Your task to perform on an android device: turn off sleep mode Image 0: 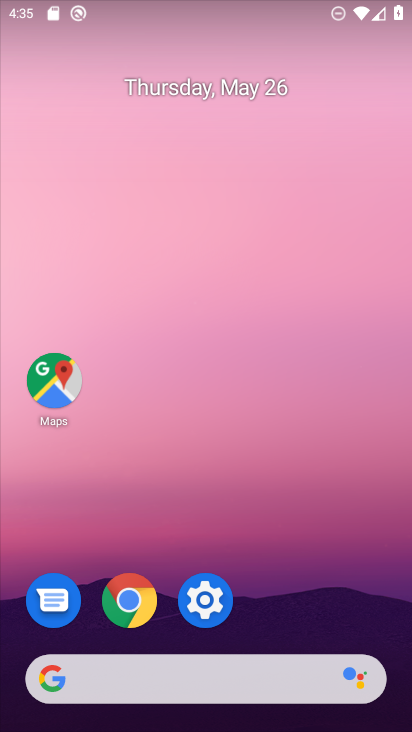
Step 0: drag from (289, 606) to (235, 319)
Your task to perform on an android device: turn off sleep mode Image 1: 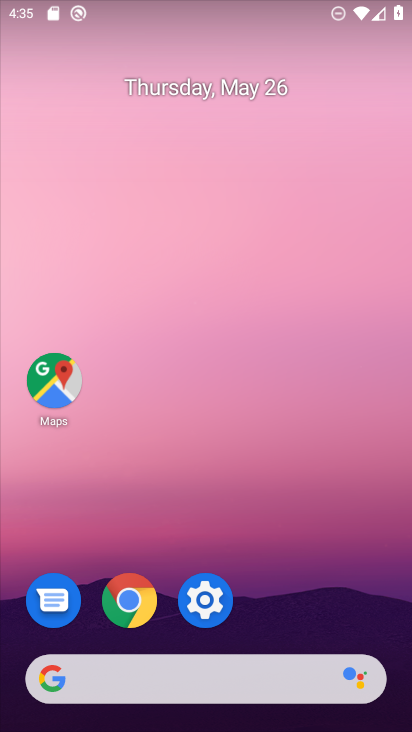
Step 1: drag from (307, 612) to (245, 234)
Your task to perform on an android device: turn off sleep mode Image 2: 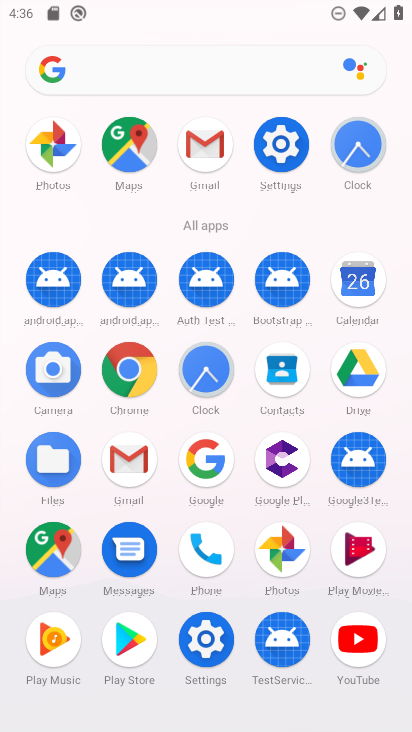
Step 2: click (277, 156)
Your task to perform on an android device: turn off sleep mode Image 3: 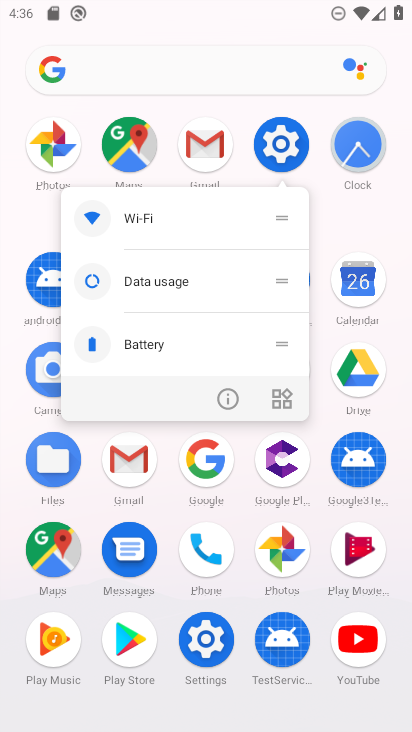
Step 3: click (270, 150)
Your task to perform on an android device: turn off sleep mode Image 4: 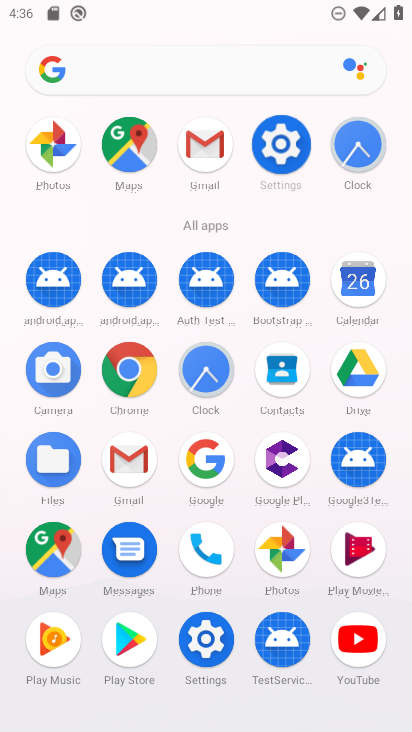
Step 4: click (275, 150)
Your task to perform on an android device: turn off sleep mode Image 5: 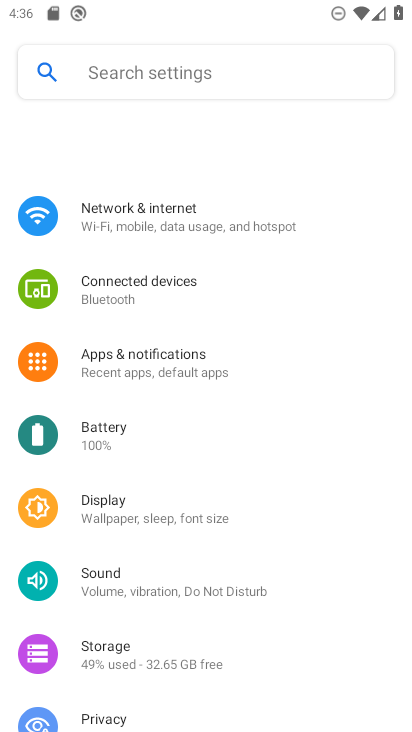
Step 5: click (275, 150)
Your task to perform on an android device: turn off sleep mode Image 6: 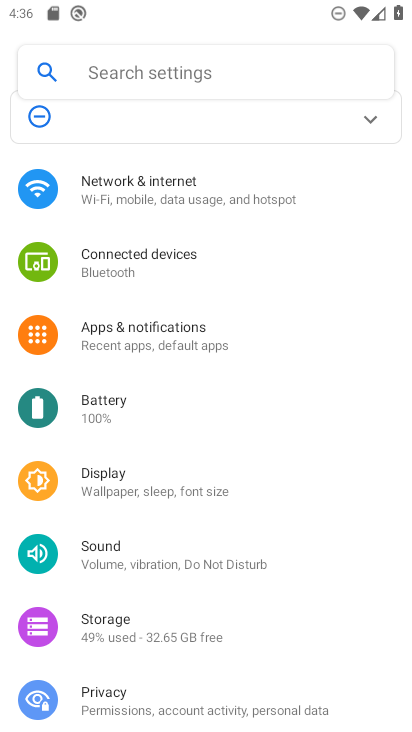
Step 6: click (275, 150)
Your task to perform on an android device: turn off sleep mode Image 7: 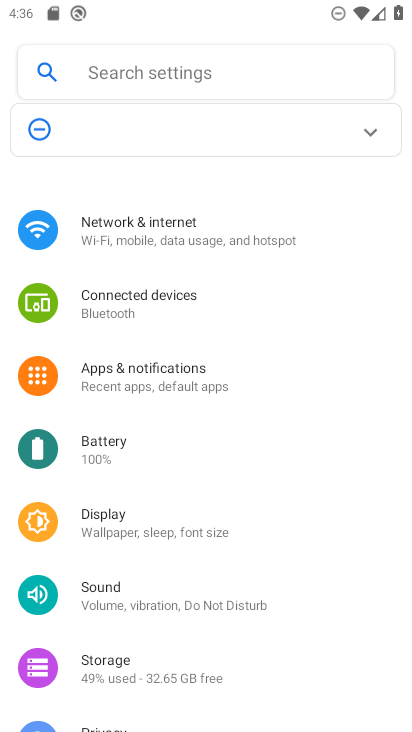
Step 7: click (276, 150)
Your task to perform on an android device: turn off sleep mode Image 8: 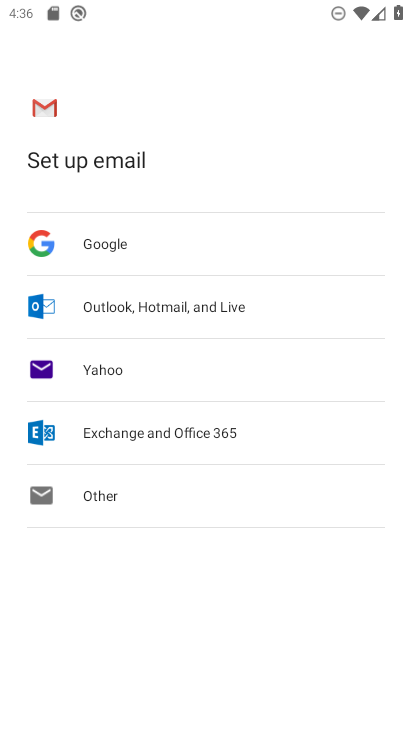
Step 8: press back button
Your task to perform on an android device: turn off sleep mode Image 9: 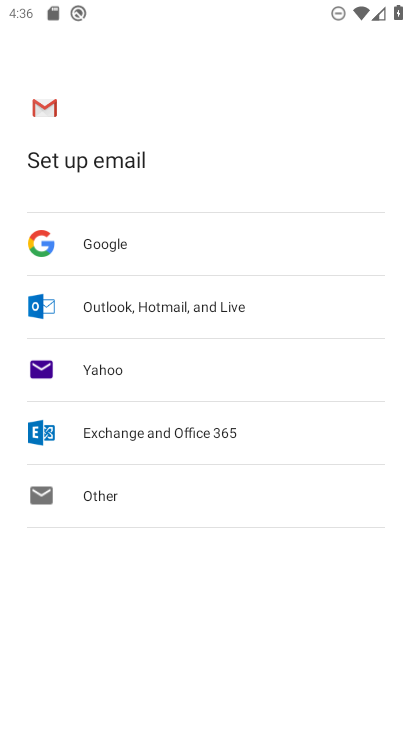
Step 9: press back button
Your task to perform on an android device: turn off sleep mode Image 10: 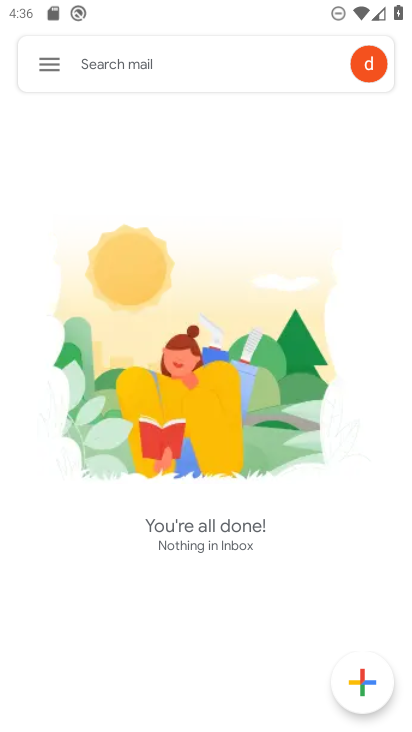
Step 10: press home button
Your task to perform on an android device: turn off sleep mode Image 11: 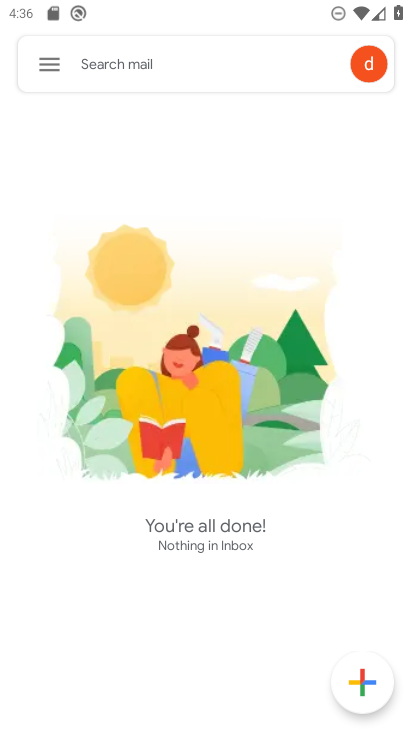
Step 11: press home button
Your task to perform on an android device: turn off sleep mode Image 12: 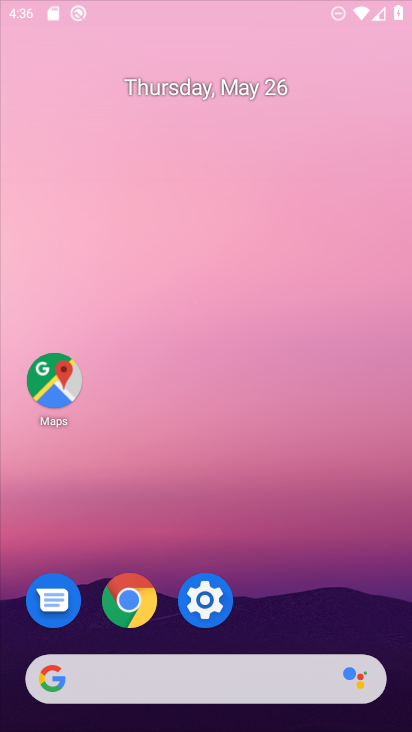
Step 12: press home button
Your task to perform on an android device: turn off sleep mode Image 13: 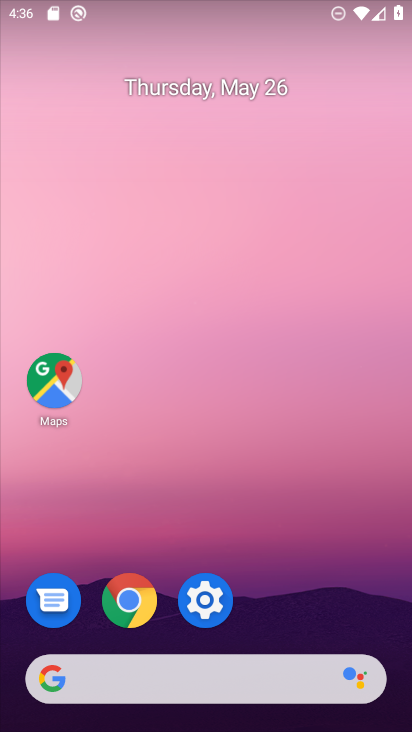
Step 13: drag from (256, 705) to (155, 1)
Your task to perform on an android device: turn off sleep mode Image 14: 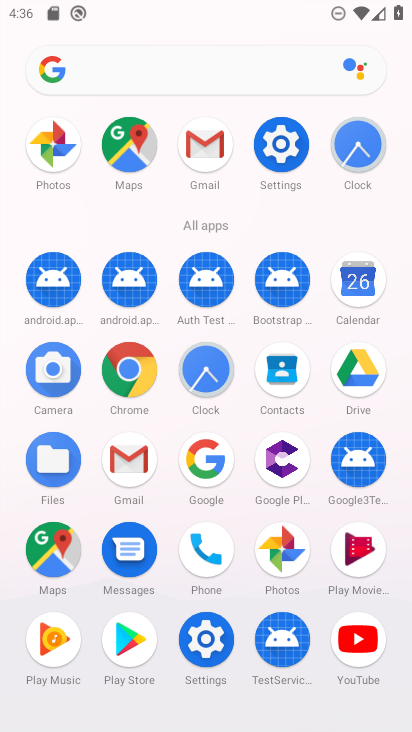
Step 14: click (275, 143)
Your task to perform on an android device: turn off sleep mode Image 15: 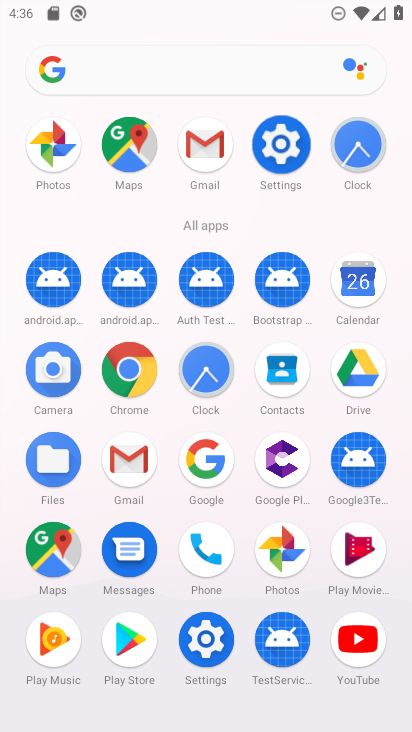
Step 15: click (275, 143)
Your task to perform on an android device: turn off sleep mode Image 16: 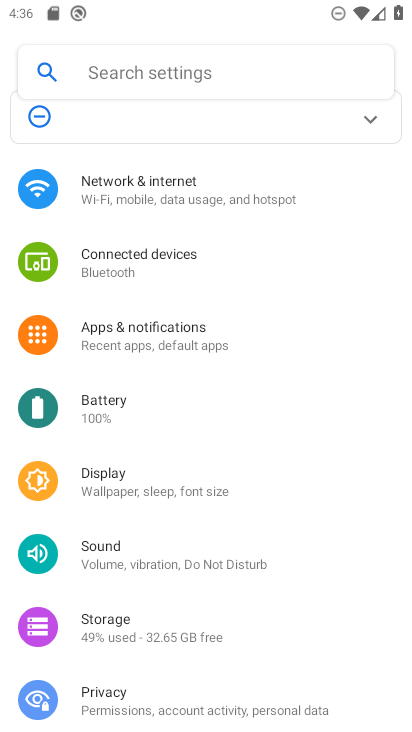
Step 16: click (276, 144)
Your task to perform on an android device: turn off sleep mode Image 17: 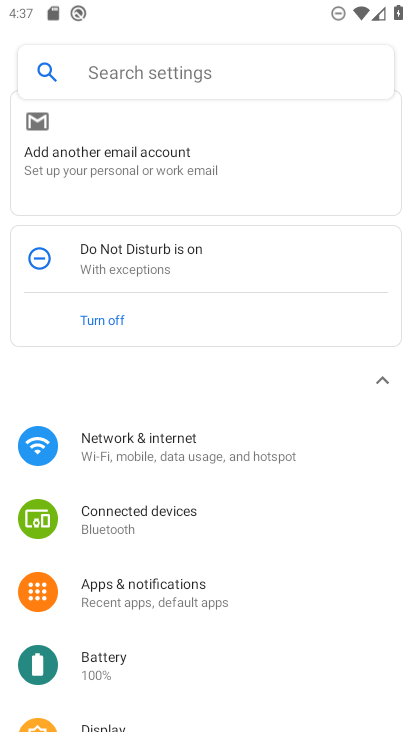
Step 17: drag from (111, 416) to (39, 119)
Your task to perform on an android device: turn off sleep mode Image 18: 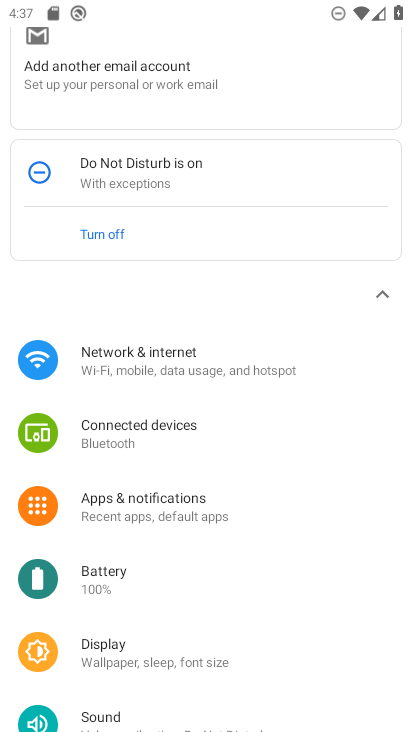
Step 18: drag from (133, 428) to (38, 108)
Your task to perform on an android device: turn off sleep mode Image 19: 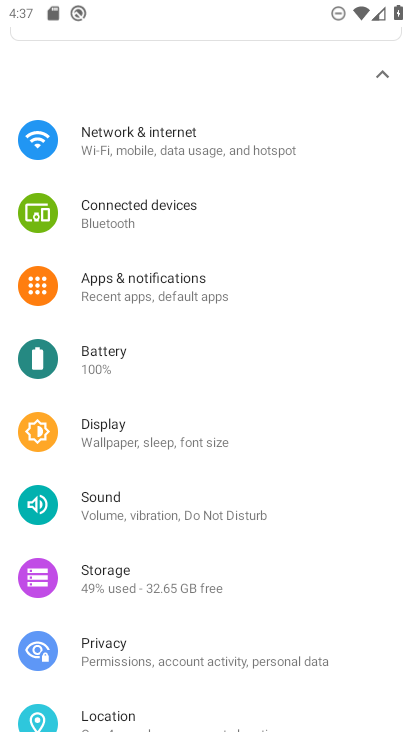
Step 19: click (199, 233)
Your task to perform on an android device: turn off sleep mode Image 20: 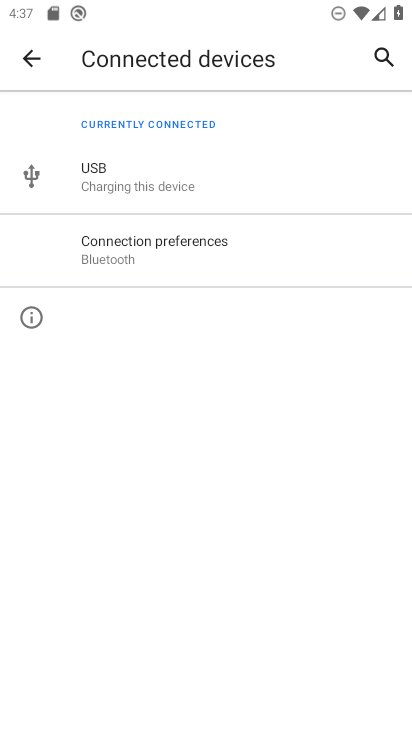
Step 20: click (31, 55)
Your task to perform on an android device: turn off sleep mode Image 21: 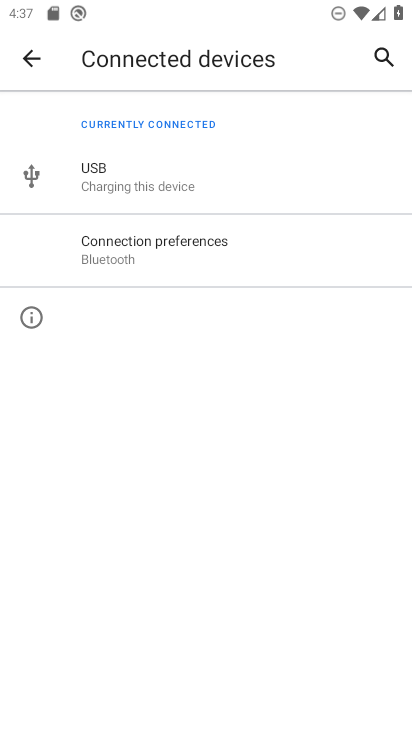
Step 21: click (31, 55)
Your task to perform on an android device: turn off sleep mode Image 22: 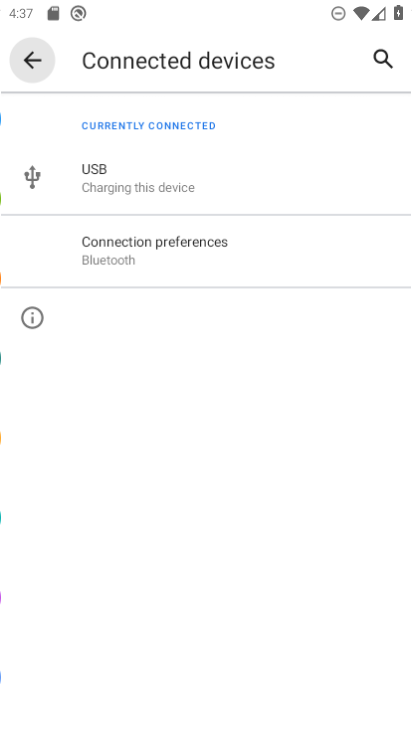
Step 22: click (31, 55)
Your task to perform on an android device: turn off sleep mode Image 23: 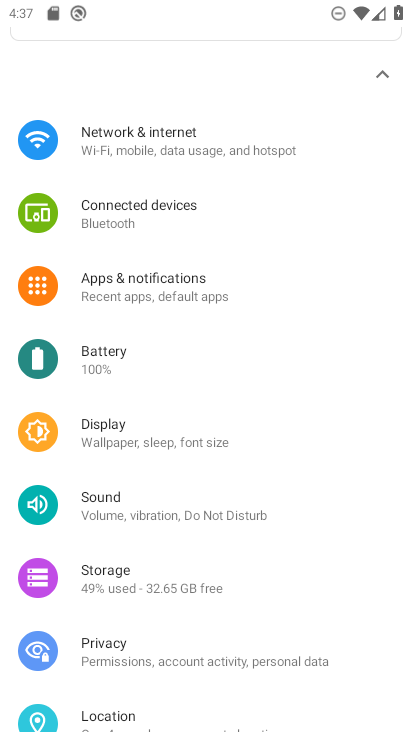
Step 23: click (119, 433)
Your task to perform on an android device: turn off sleep mode Image 24: 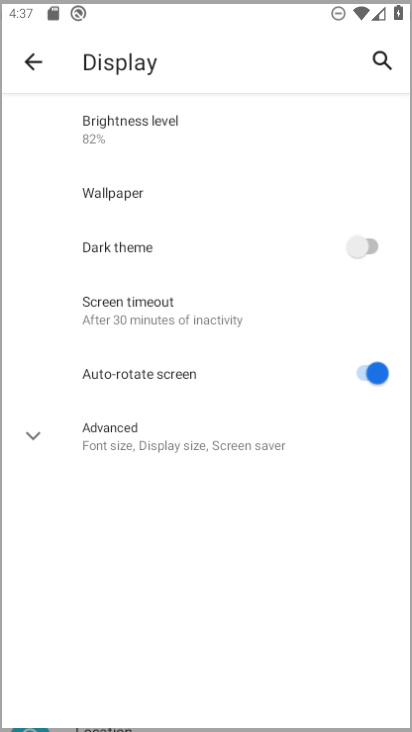
Step 24: click (119, 433)
Your task to perform on an android device: turn off sleep mode Image 25: 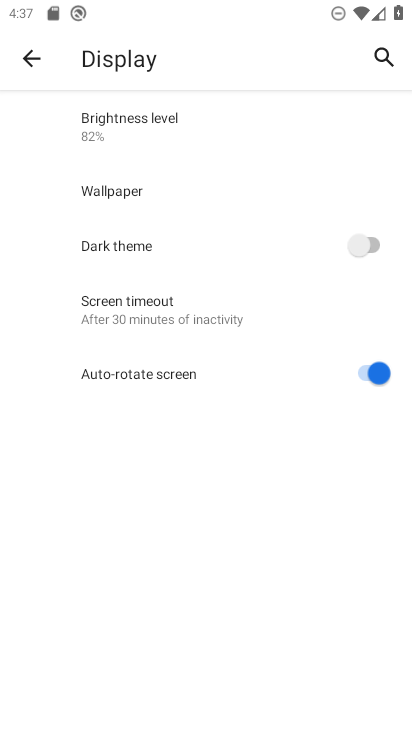
Step 25: click (120, 433)
Your task to perform on an android device: turn off sleep mode Image 26: 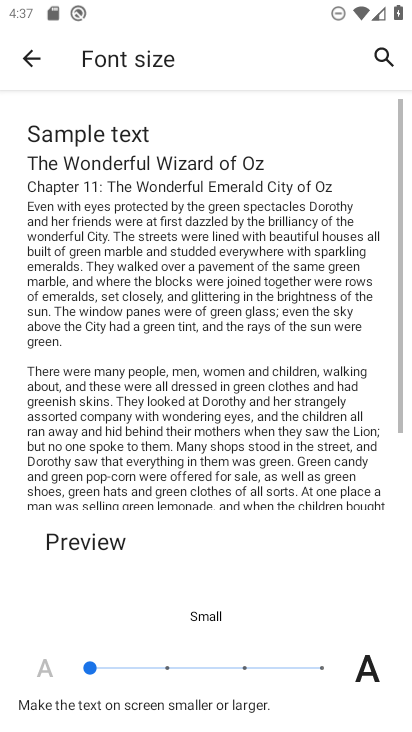
Step 26: task complete